Your task to perform on an android device: Do I have any events today? Image 0: 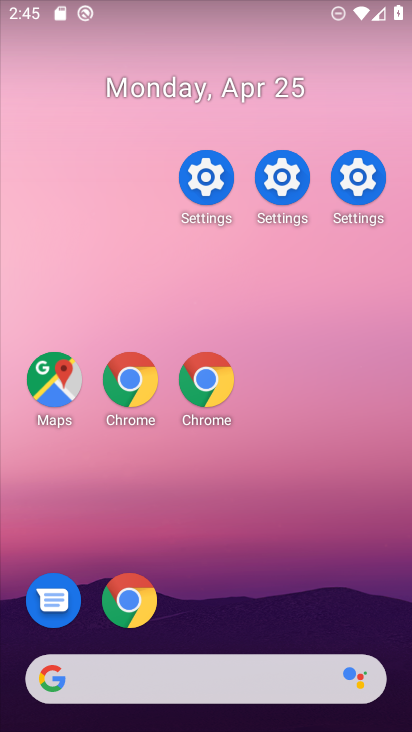
Step 0: drag from (249, 518) to (238, 62)
Your task to perform on an android device: Do I have any events today? Image 1: 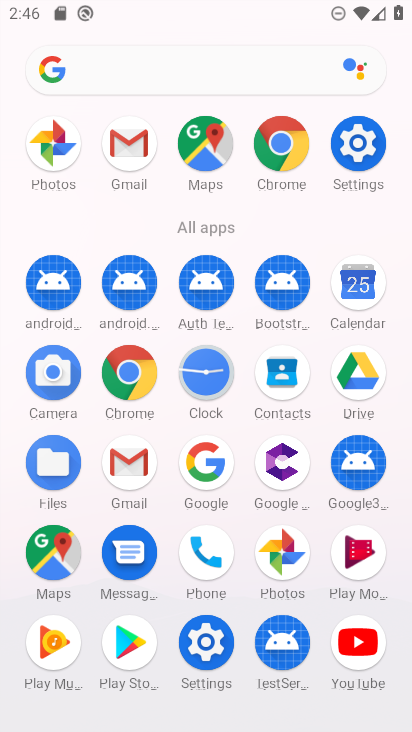
Step 1: click (358, 292)
Your task to perform on an android device: Do I have any events today? Image 2: 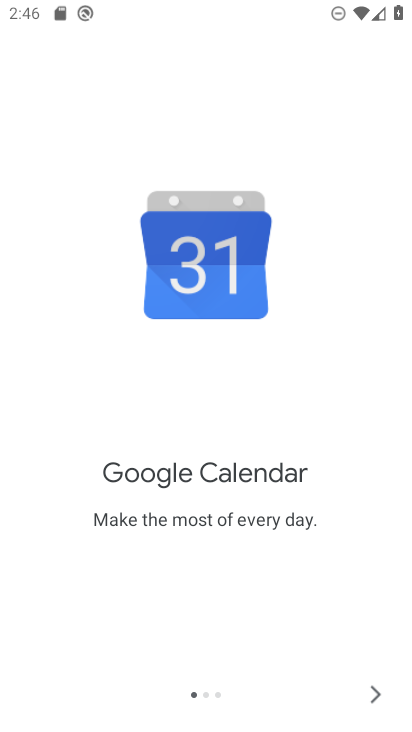
Step 2: click (377, 691)
Your task to perform on an android device: Do I have any events today? Image 3: 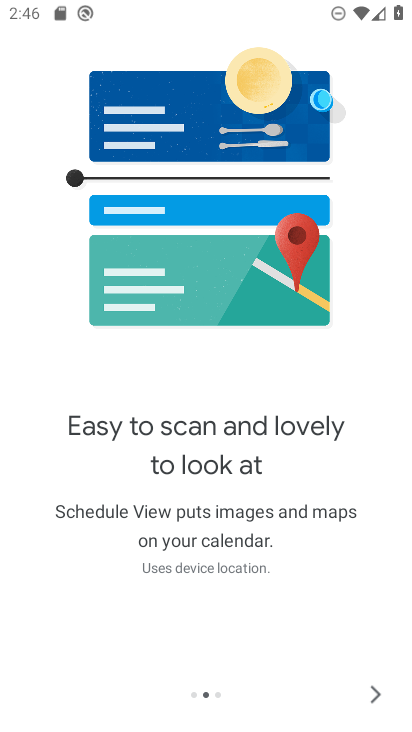
Step 3: click (365, 688)
Your task to perform on an android device: Do I have any events today? Image 4: 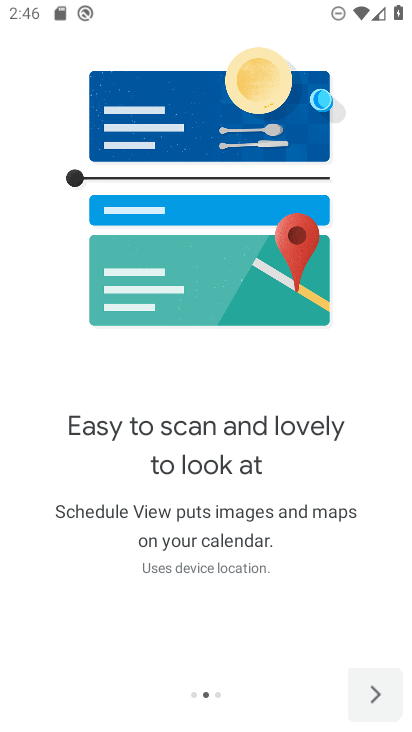
Step 4: click (372, 686)
Your task to perform on an android device: Do I have any events today? Image 5: 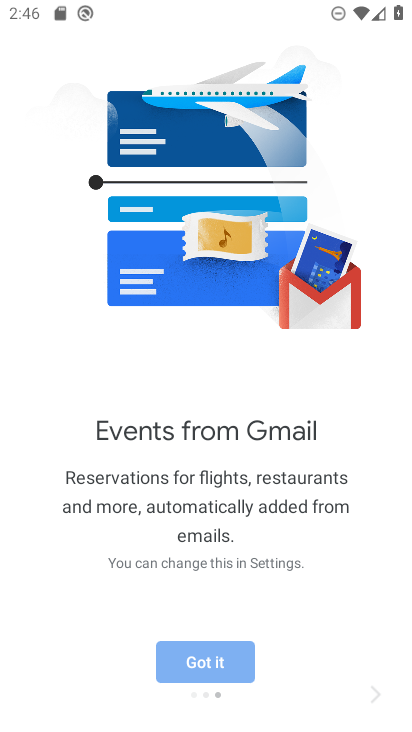
Step 5: click (373, 687)
Your task to perform on an android device: Do I have any events today? Image 6: 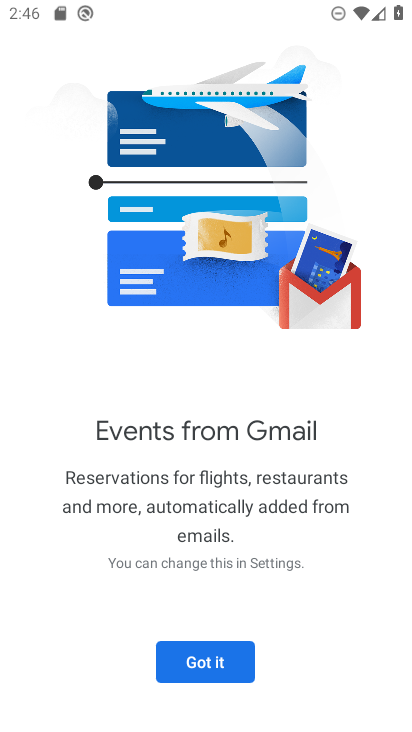
Step 6: click (213, 660)
Your task to perform on an android device: Do I have any events today? Image 7: 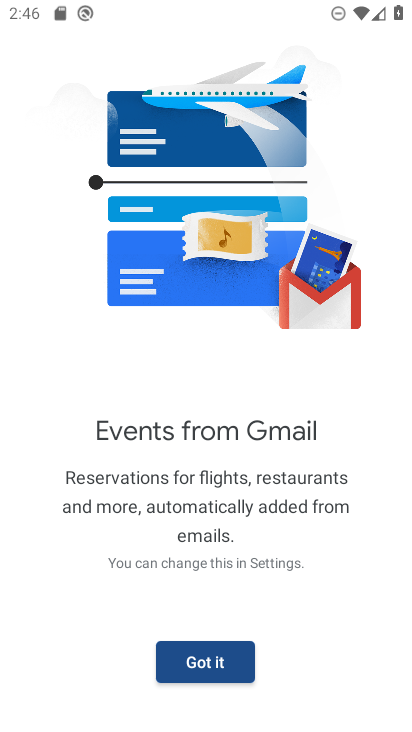
Step 7: click (199, 656)
Your task to perform on an android device: Do I have any events today? Image 8: 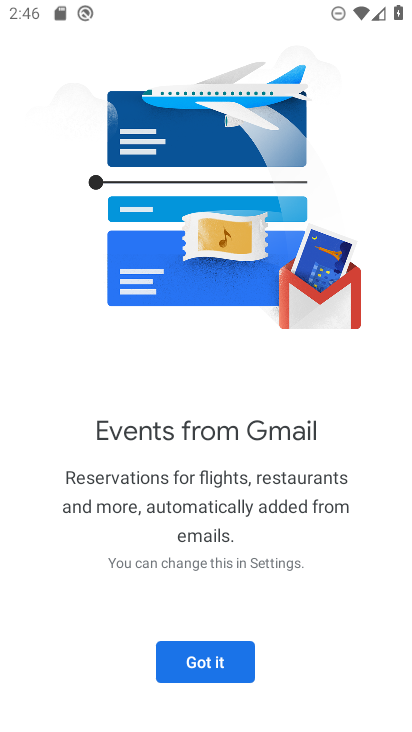
Step 8: click (200, 656)
Your task to perform on an android device: Do I have any events today? Image 9: 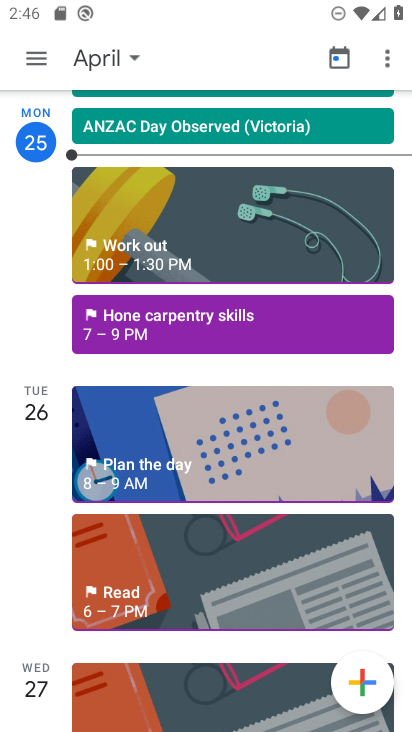
Step 9: click (208, 642)
Your task to perform on an android device: Do I have any events today? Image 10: 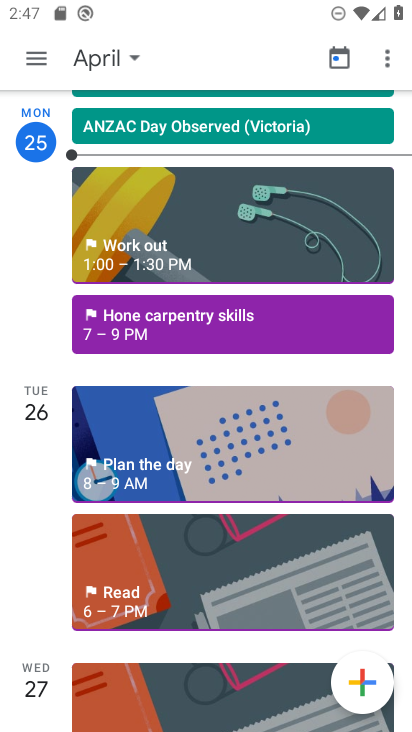
Step 10: click (131, 60)
Your task to perform on an android device: Do I have any events today? Image 11: 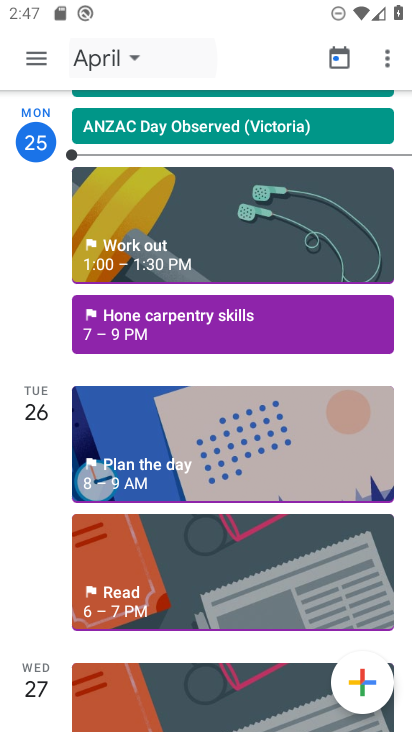
Step 11: click (134, 61)
Your task to perform on an android device: Do I have any events today? Image 12: 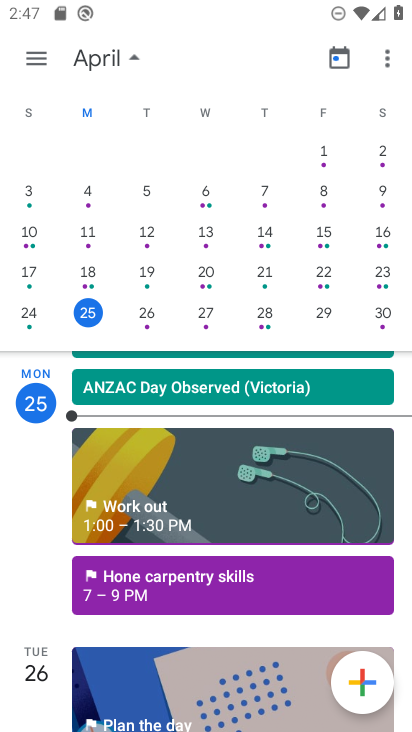
Step 12: task complete